Your task to perform on an android device: open app "Facebook Messenger" (install if not already installed) Image 0: 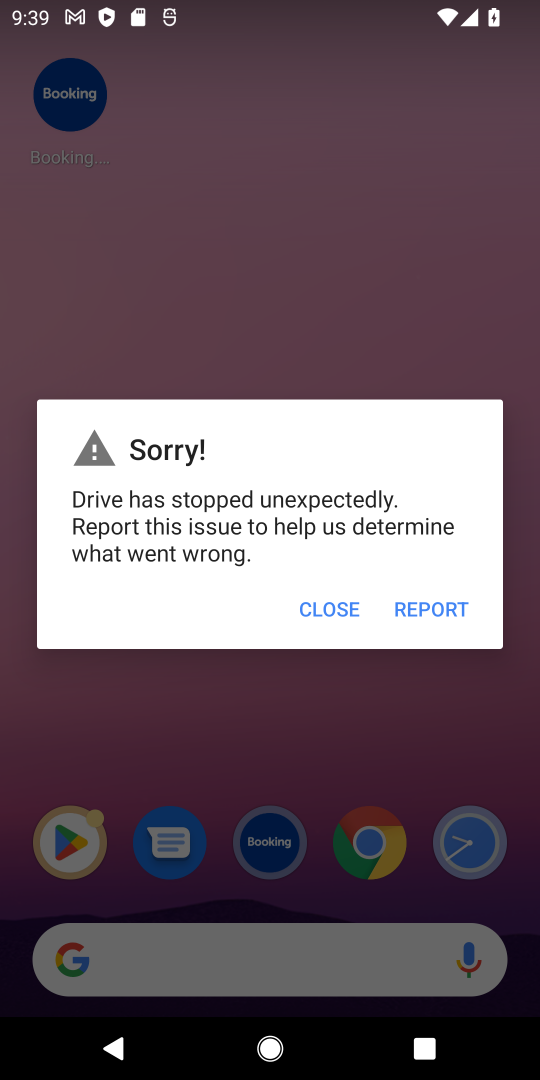
Step 0: click (312, 590)
Your task to perform on an android device: open app "Facebook Messenger" (install if not already installed) Image 1: 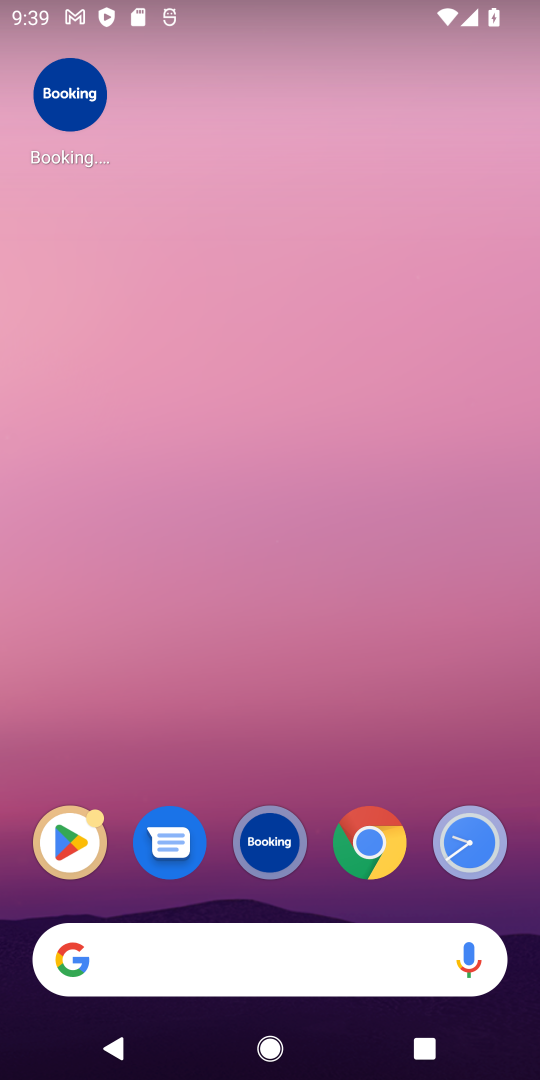
Step 1: click (79, 839)
Your task to perform on an android device: open app "Facebook Messenger" (install if not already installed) Image 2: 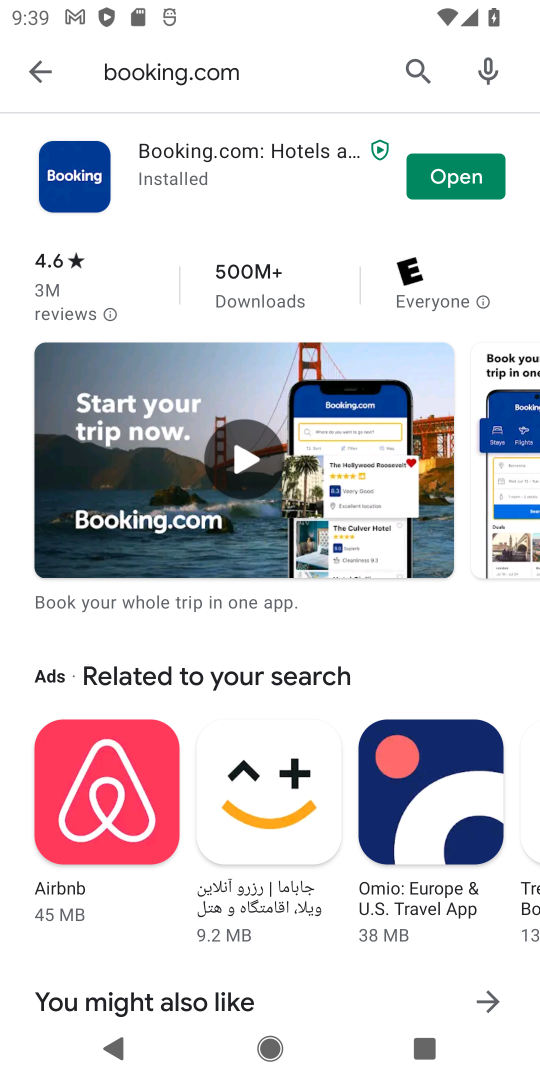
Step 2: click (416, 59)
Your task to perform on an android device: open app "Facebook Messenger" (install if not already installed) Image 3: 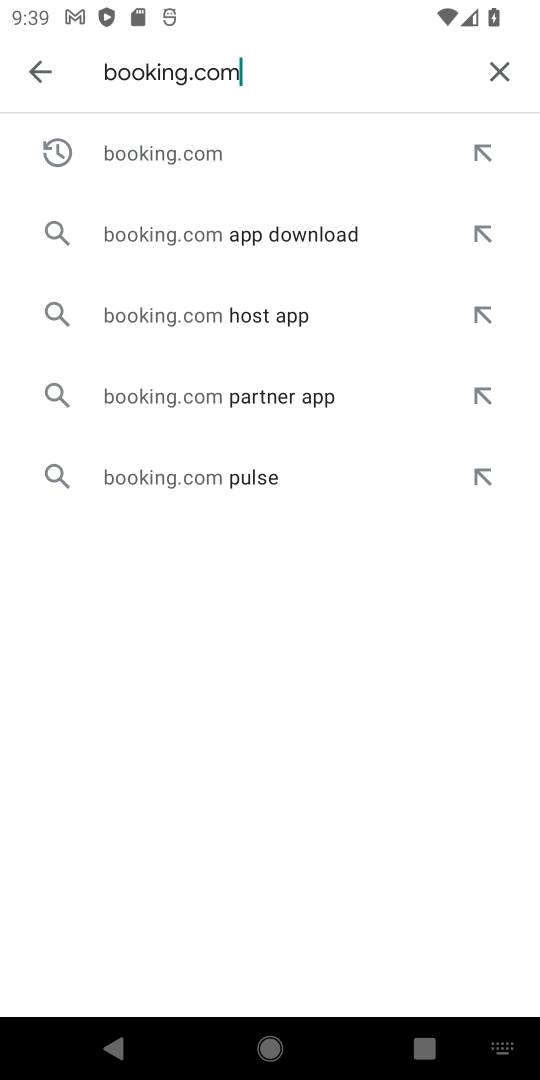
Step 3: click (502, 66)
Your task to perform on an android device: open app "Facebook Messenger" (install if not already installed) Image 4: 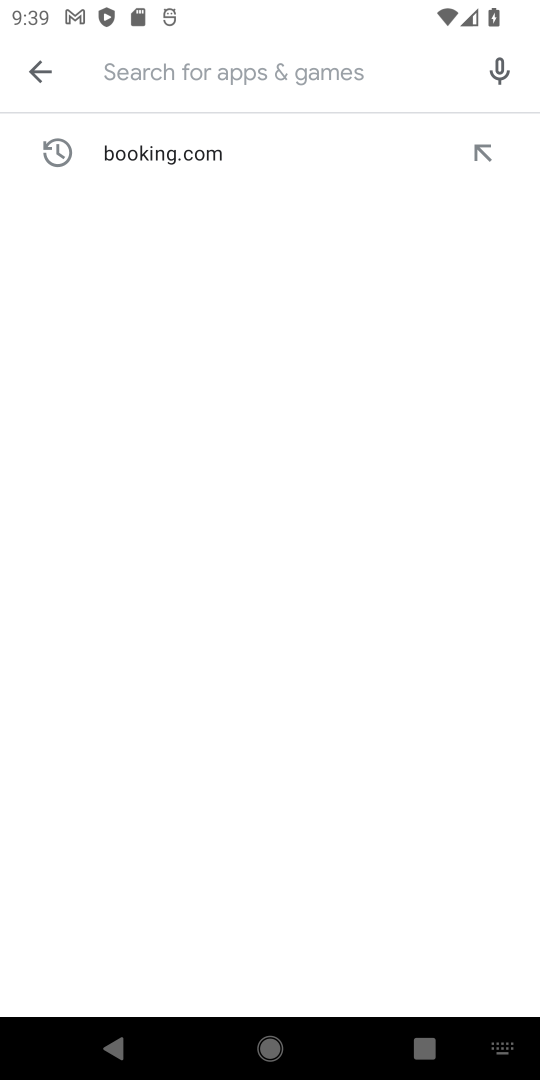
Step 4: click (230, 68)
Your task to perform on an android device: open app "Facebook Messenger" (install if not already installed) Image 5: 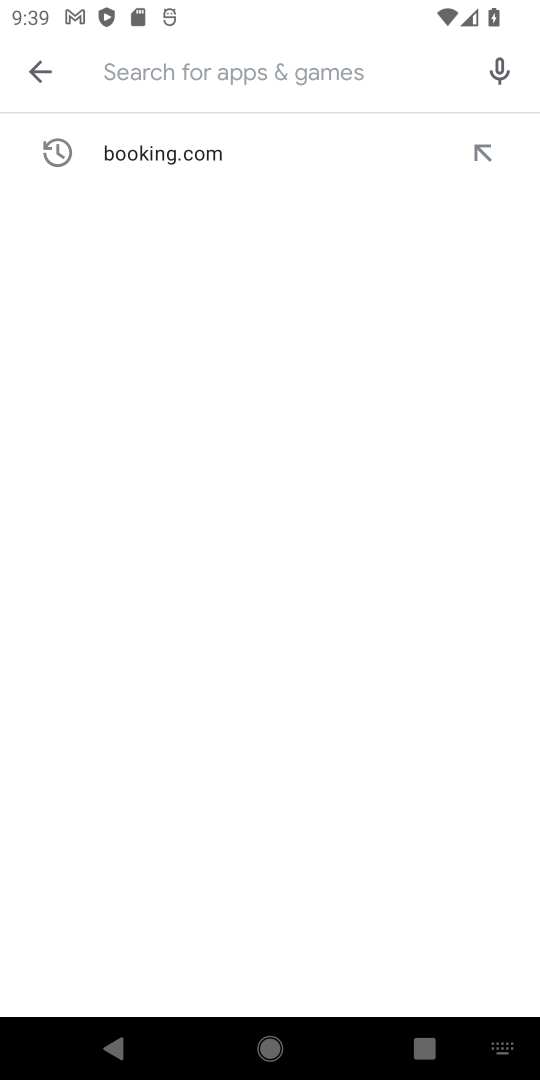
Step 5: type "facebook messenger"
Your task to perform on an android device: open app "Facebook Messenger" (install if not already installed) Image 6: 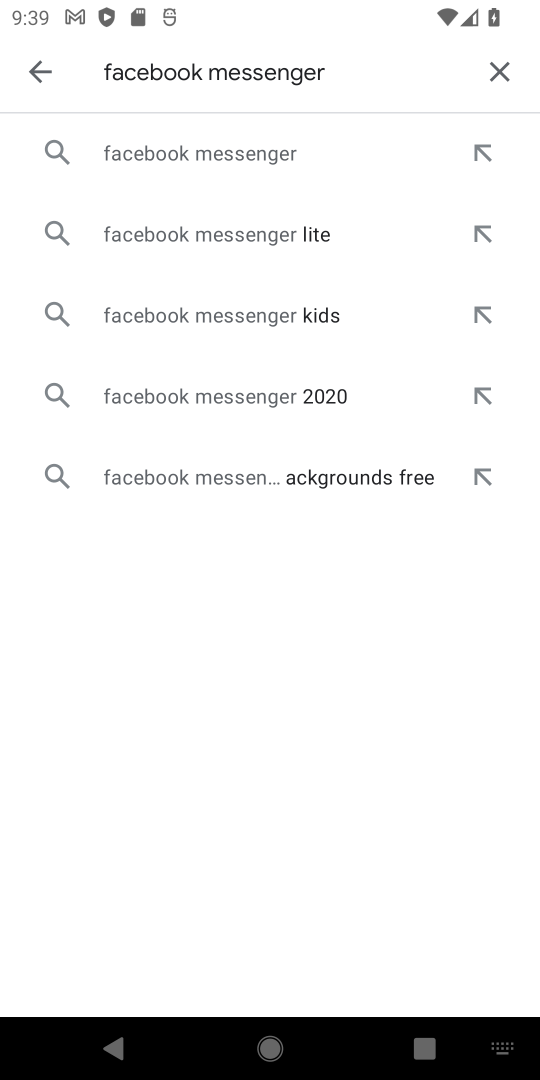
Step 6: click (174, 146)
Your task to perform on an android device: open app "Facebook Messenger" (install if not already installed) Image 7: 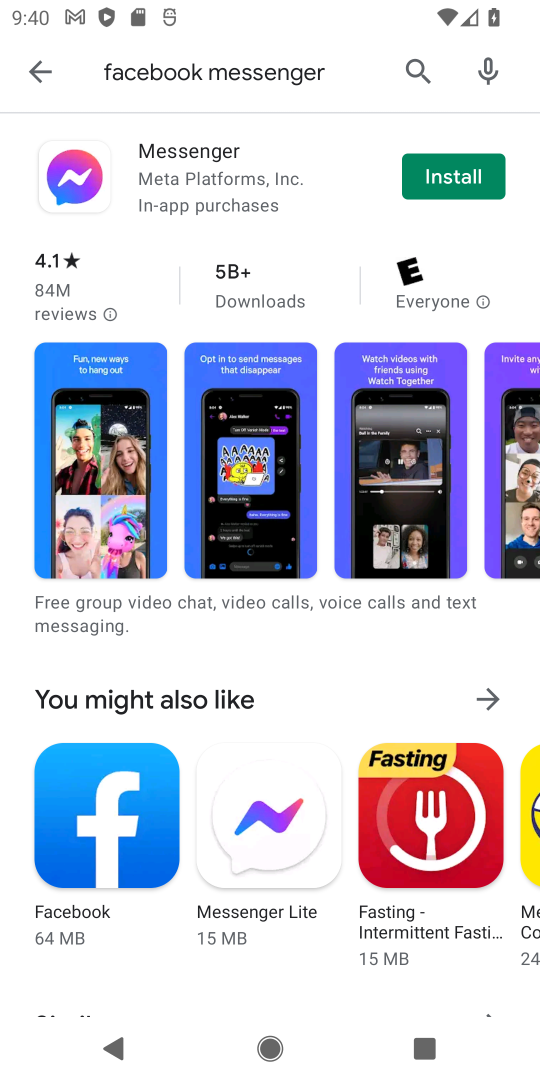
Step 7: click (450, 175)
Your task to perform on an android device: open app "Facebook Messenger" (install if not already installed) Image 8: 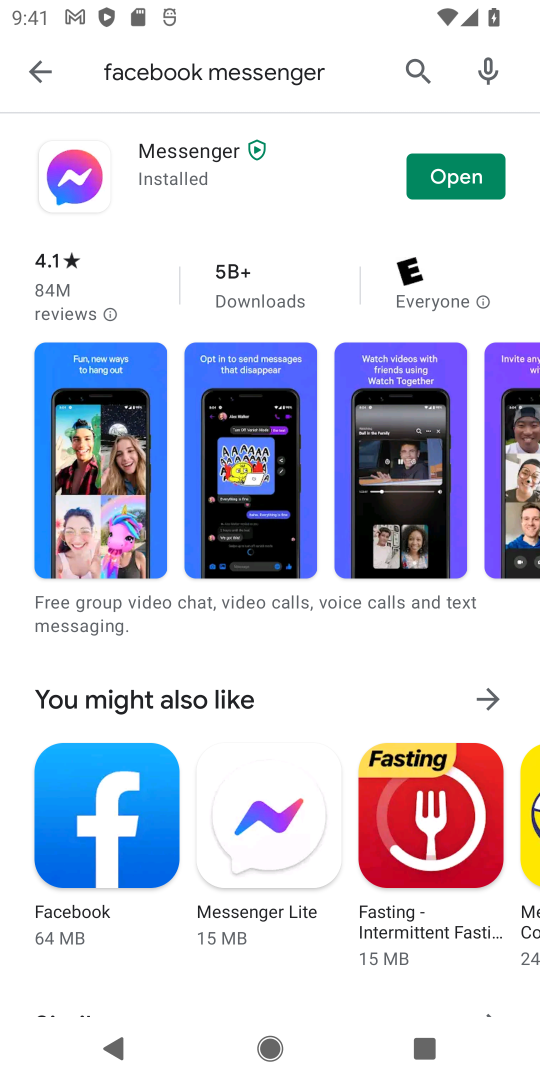
Step 8: click (450, 169)
Your task to perform on an android device: open app "Facebook Messenger" (install if not already installed) Image 9: 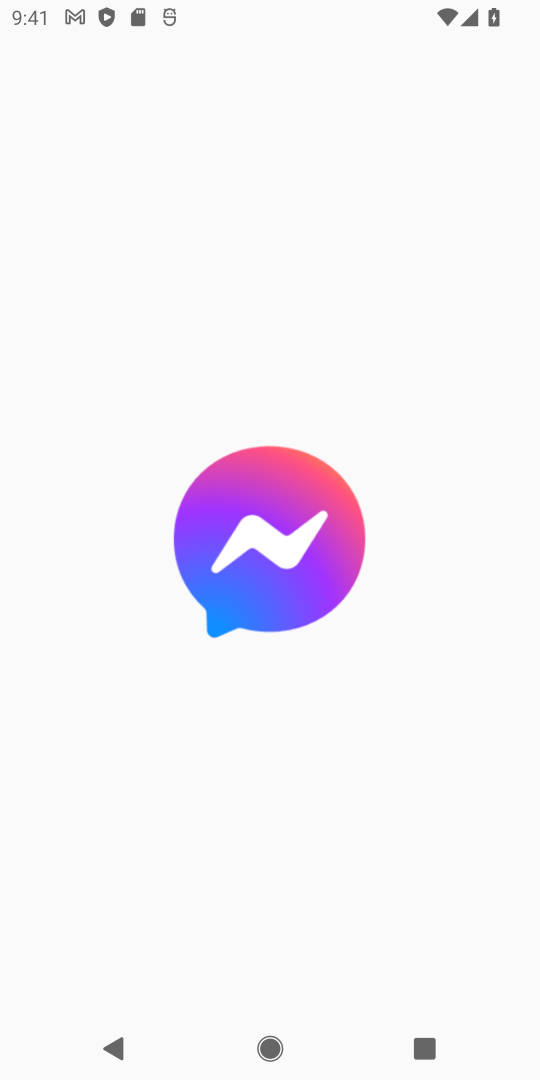
Step 9: task complete